Your task to perform on an android device: Open accessibility settings Image 0: 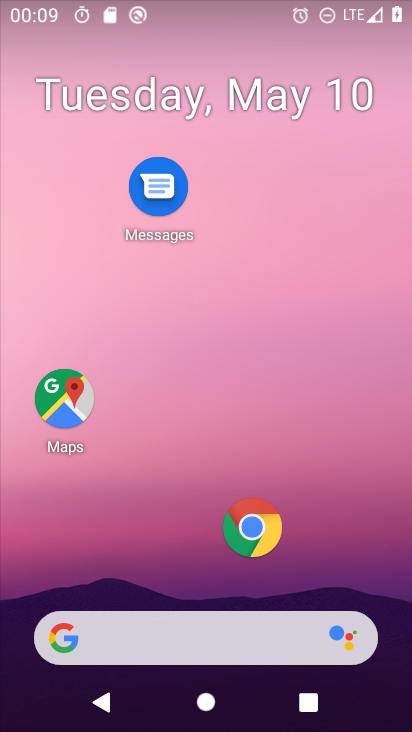
Step 0: drag from (189, 556) to (187, 87)
Your task to perform on an android device: Open accessibility settings Image 1: 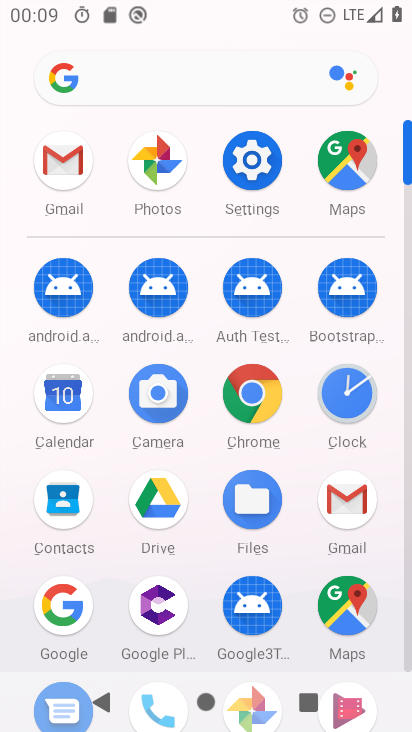
Step 1: click (251, 172)
Your task to perform on an android device: Open accessibility settings Image 2: 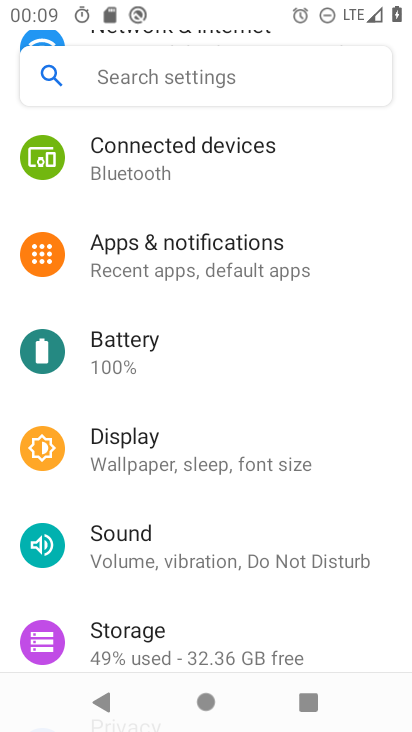
Step 2: drag from (267, 599) to (262, 49)
Your task to perform on an android device: Open accessibility settings Image 3: 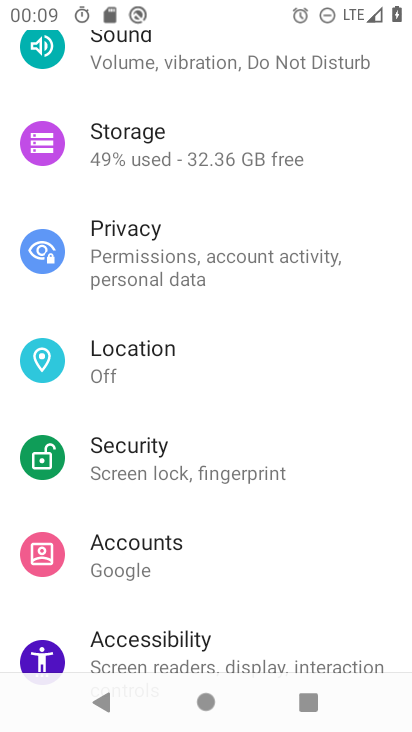
Step 3: click (173, 635)
Your task to perform on an android device: Open accessibility settings Image 4: 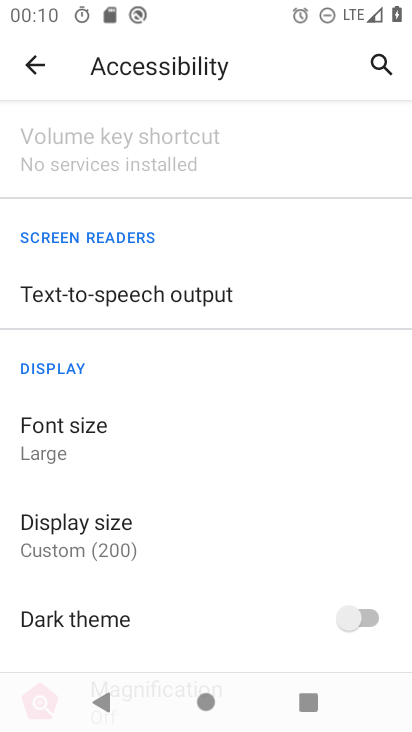
Step 4: task complete